Your task to perform on an android device: change the upload size in google photos Image 0: 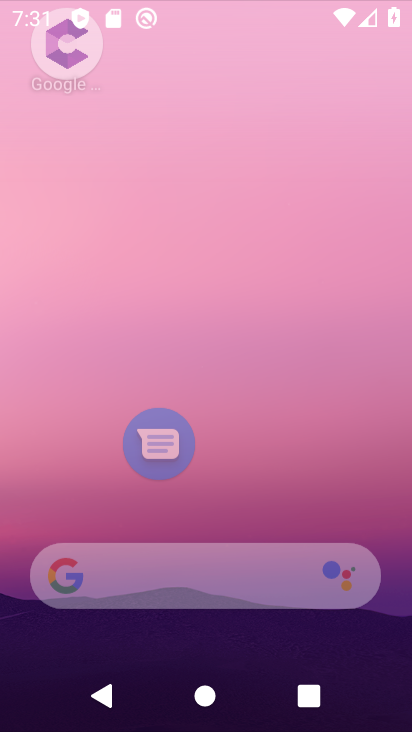
Step 0: drag from (243, 175) to (274, 27)
Your task to perform on an android device: change the upload size in google photos Image 1: 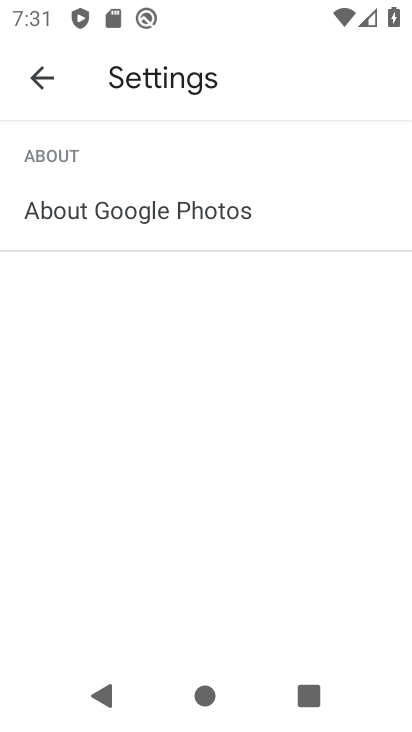
Step 1: press home button
Your task to perform on an android device: change the upload size in google photos Image 2: 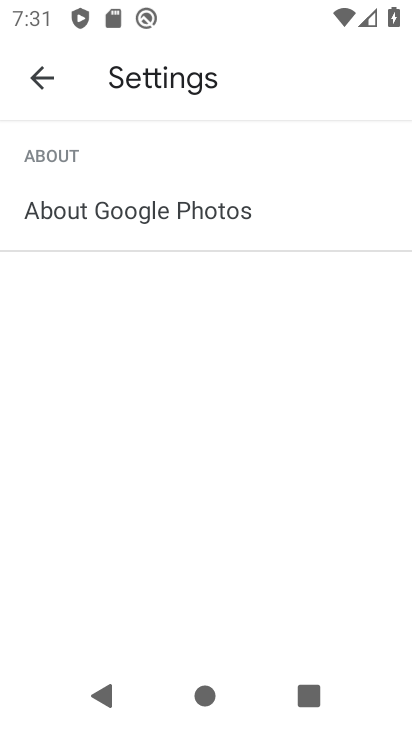
Step 2: press home button
Your task to perform on an android device: change the upload size in google photos Image 3: 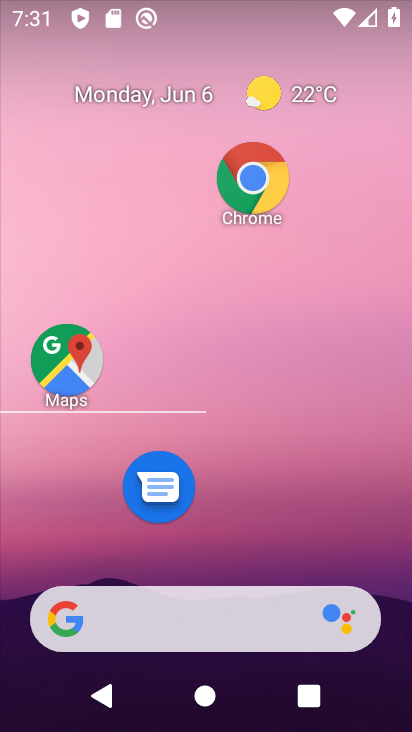
Step 3: drag from (95, 533) to (186, 63)
Your task to perform on an android device: change the upload size in google photos Image 4: 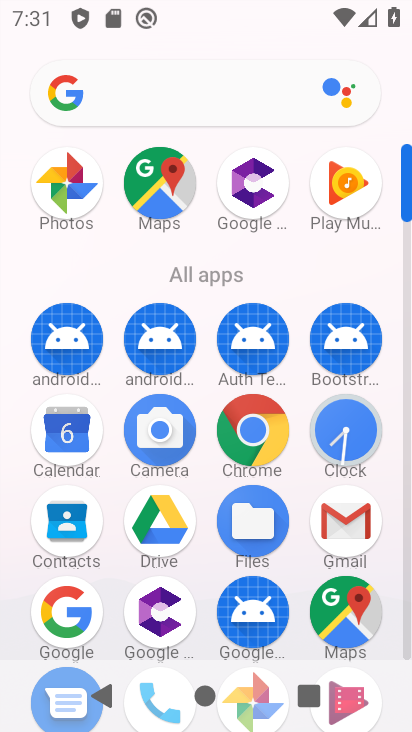
Step 4: drag from (209, 534) to (213, 201)
Your task to perform on an android device: change the upload size in google photos Image 5: 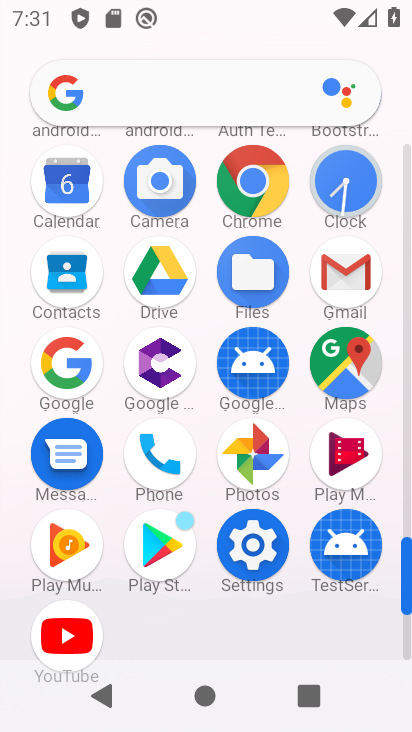
Step 5: click (254, 455)
Your task to perform on an android device: change the upload size in google photos Image 6: 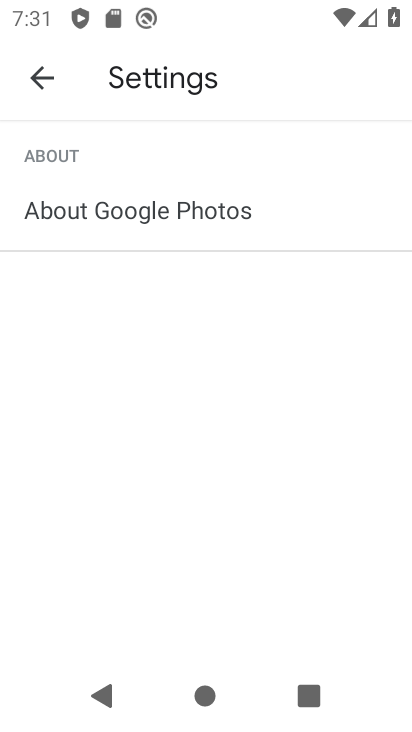
Step 6: press home button
Your task to perform on an android device: change the upload size in google photos Image 7: 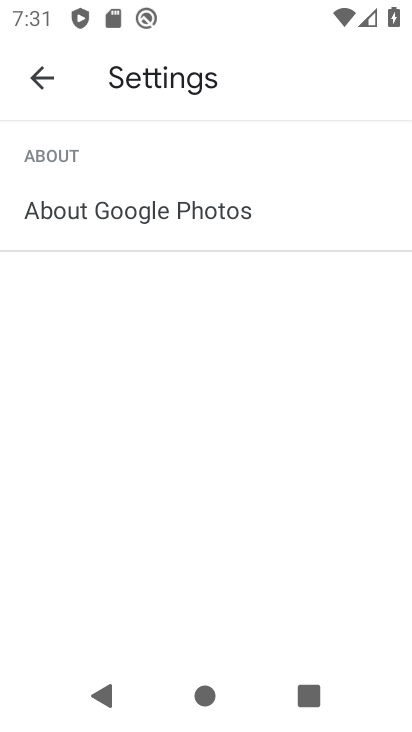
Step 7: press home button
Your task to perform on an android device: change the upload size in google photos Image 8: 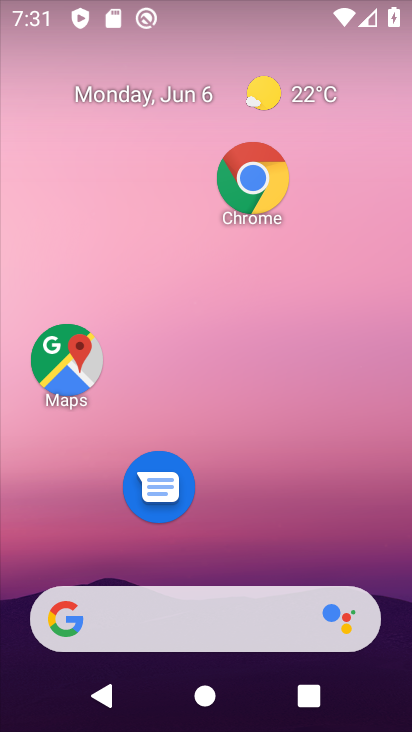
Step 8: drag from (207, 566) to (213, 46)
Your task to perform on an android device: change the upload size in google photos Image 9: 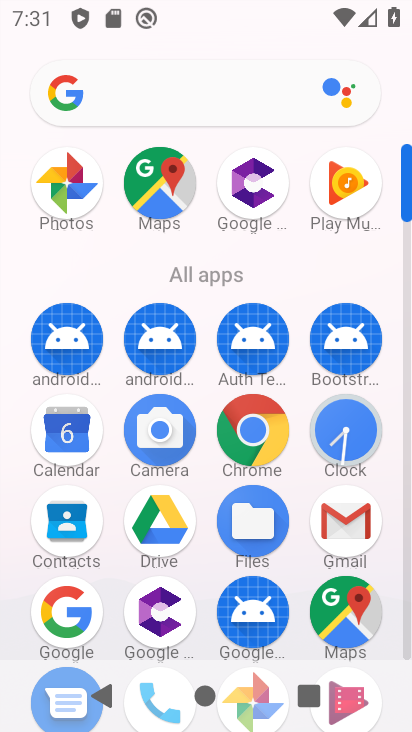
Step 9: drag from (214, 544) to (214, 194)
Your task to perform on an android device: change the upload size in google photos Image 10: 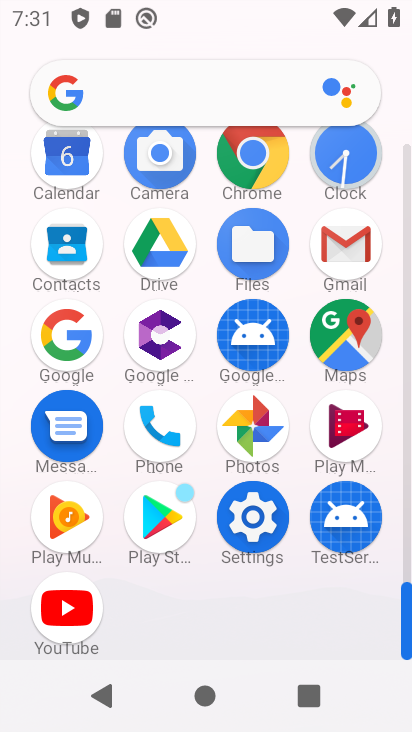
Step 10: click (233, 424)
Your task to perform on an android device: change the upload size in google photos Image 11: 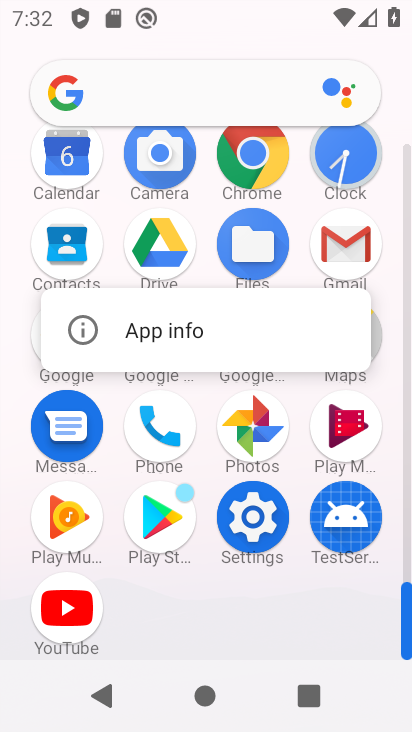
Step 11: click (125, 336)
Your task to perform on an android device: change the upload size in google photos Image 12: 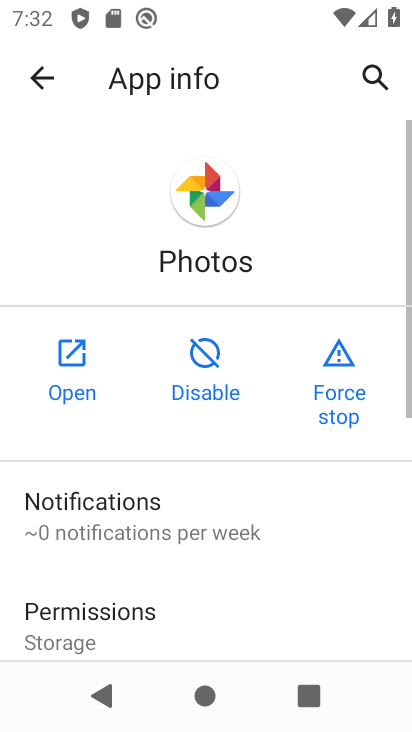
Step 12: click (75, 342)
Your task to perform on an android device: change the upload size in google photos Image 13: 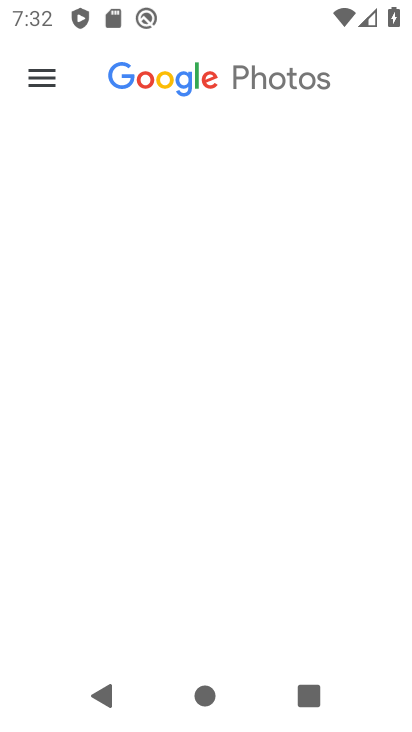
Step 13: drag from (283, 314) to (303, 158)
Your task to perform on an android device: change the upload size in google photos Image 14: 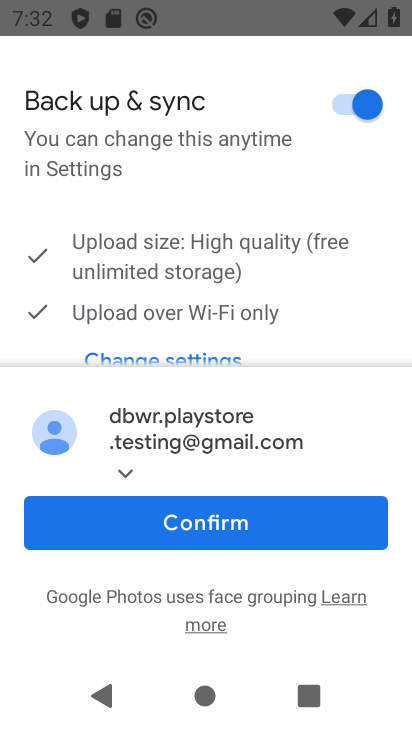
Step 14: click (206, 522)
Your task to perform on an android device: change the upload size in google photos Image 15: 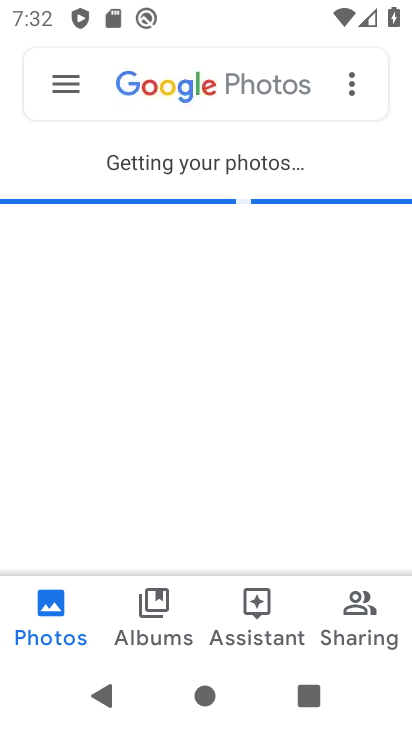
Step 15: click (46, 87)
Your task to perform on an android device: change the upload size in google photos Image 16: 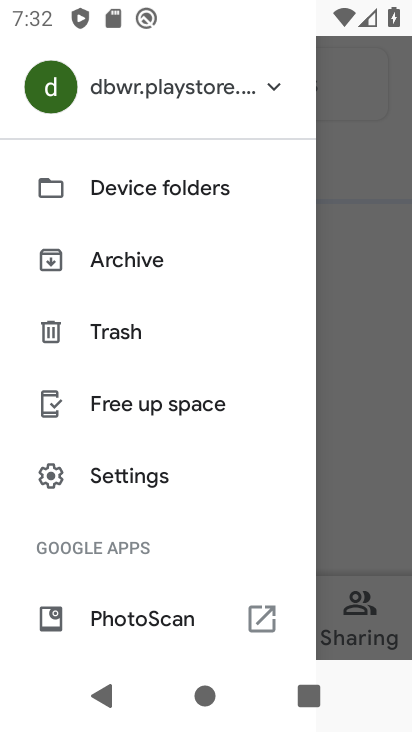
Step 16: click (120, 471)
Your task to perform on an android device: change the upload size in google photos Image 17: 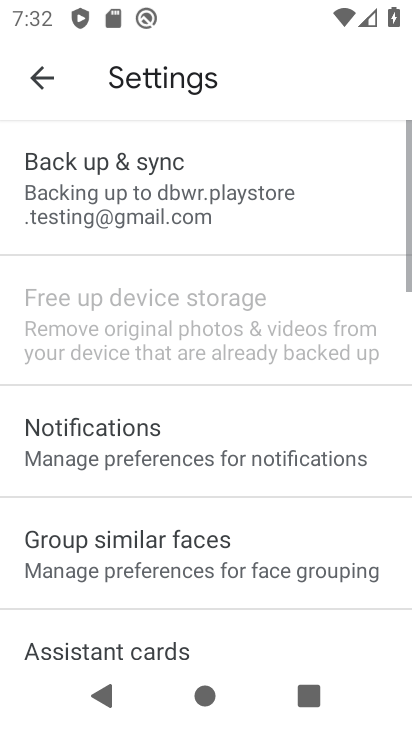
Step 17: click (126, 213)
Your task to perform on an android device: change the upload size in google photos Image 18: 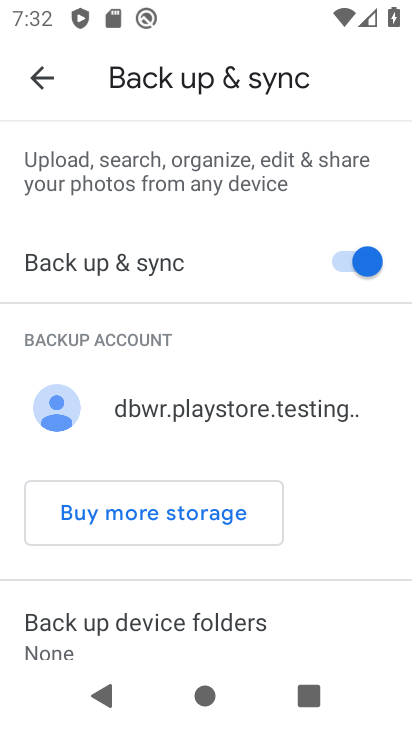
Step 18: drag from (191, 585) to (238, 178)
Your task to perform on an android device: change the upload size in google photos Image 19: 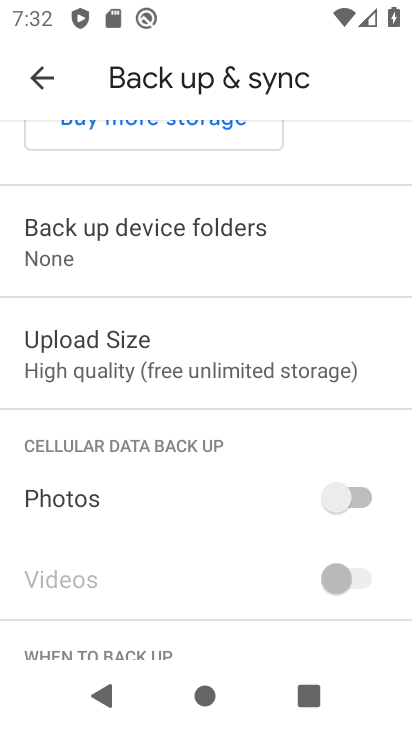
Step 19: drag from (236, 248) to (335, 724)
Your task to perform on an android device: change the upload size in google photos Image 20: 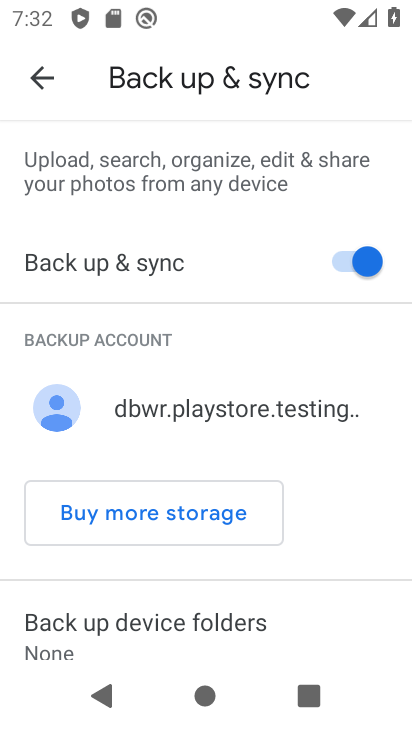
Step 20: drag from (222, 526) to (267, 338)
Your task to perform on an android device: change the upload size in google photos Image 21: 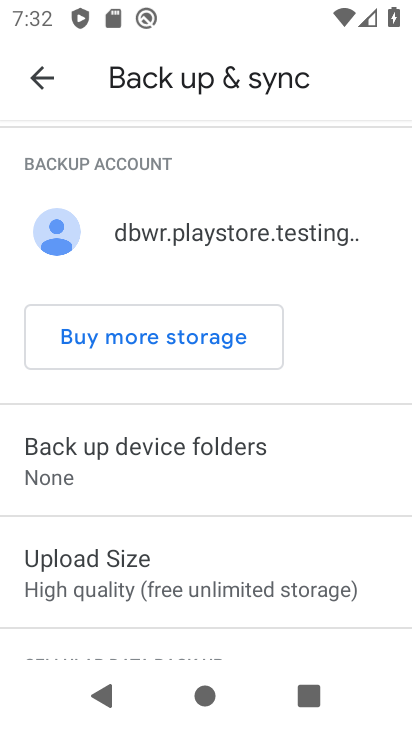
Step 21: click (166, 619)
Your task to perform on an android device: change the upload size in google photos Image 22: 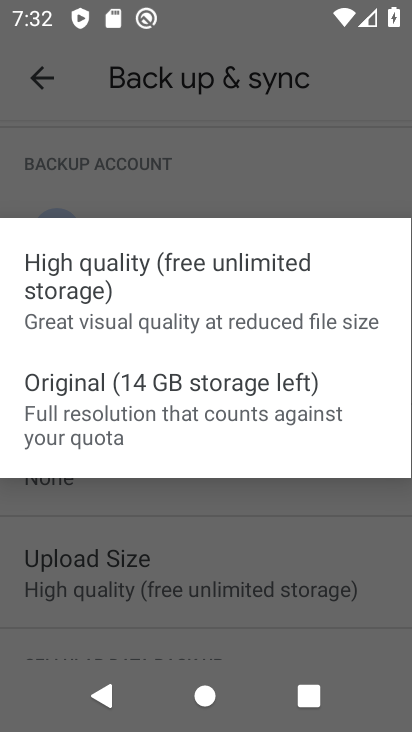
Step 22: click (249, 276)
Your task to perform on an android device: change the upload size in google photos Image 23: 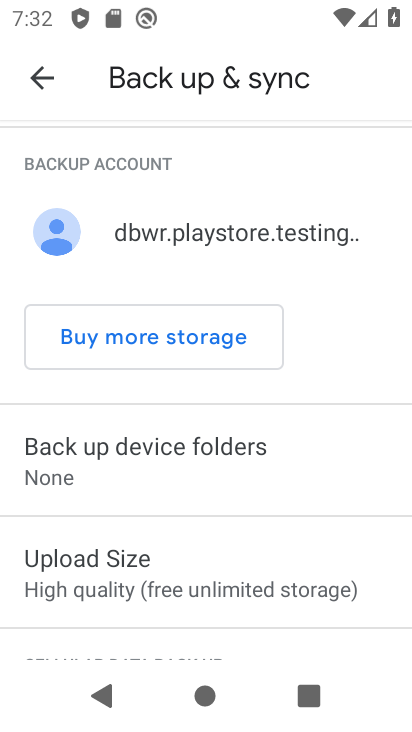
Step 23: task complete